Your task to perform on an android device: Open network settings Image 0: 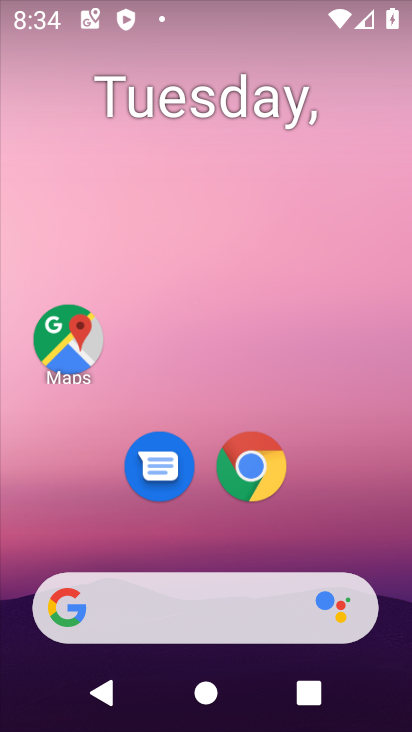
Step 0: drag from (339, 507) to (311, 67)
Your task to perform on an android device: Open network settings Image 1: 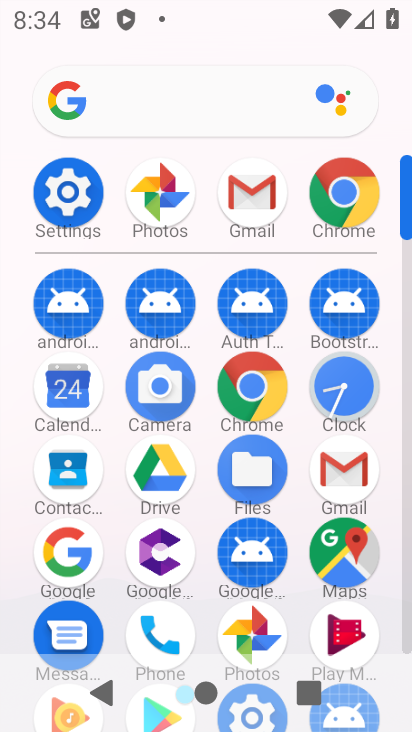
Step 1: click (42, 189)
Your task to perform on an android device: Open network settings Image 2: 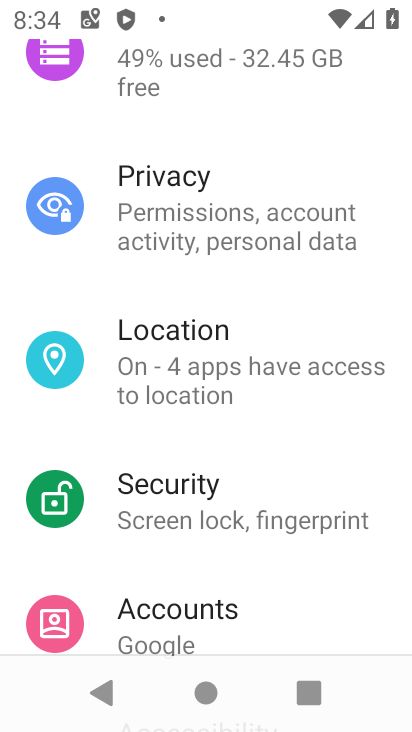
Step 2: drag from (251, 212) to (382, 708)
Your task to perform on an android device: Open network settings Image 3: 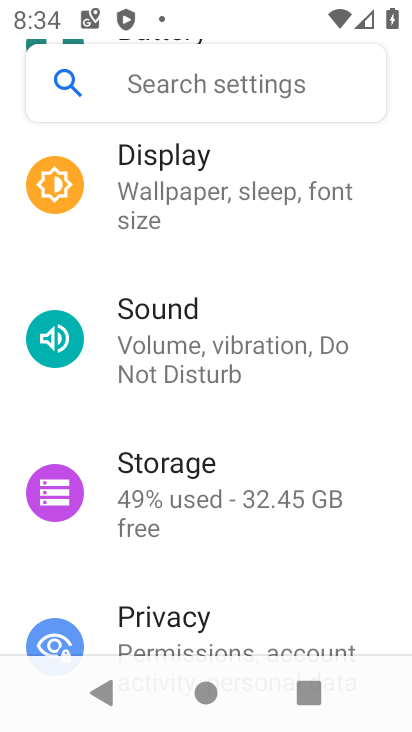
Step 3: drag from (234, 247) to (245, 464)
Your task to perform on an android device: Open network settings Image 4: 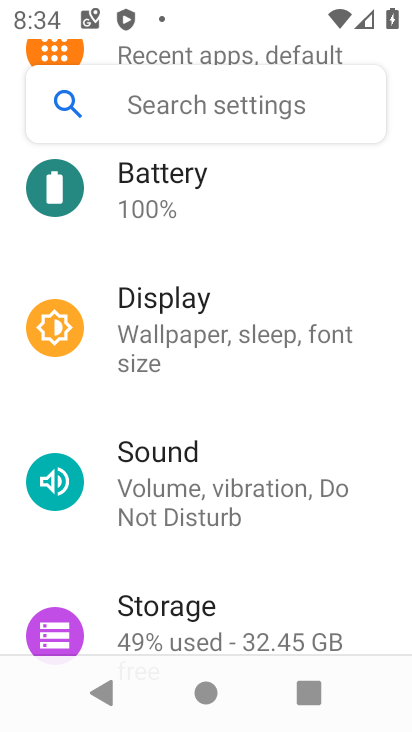
Step 4: drag from (245, 464) to (245, 526)
Your task to perform on an android device: Open network settings Image 5: 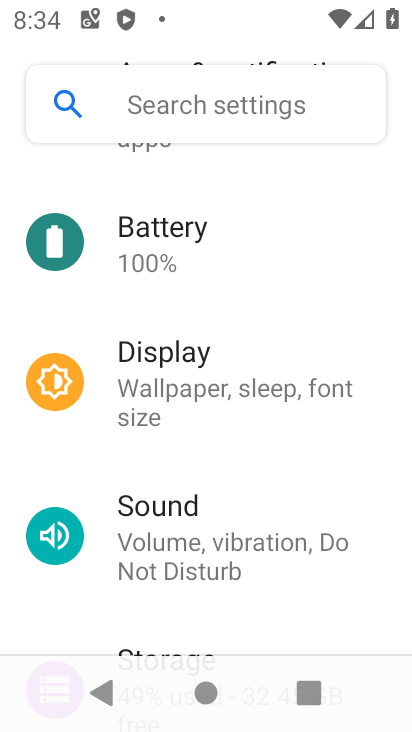
Step 5: drag from (253, 207) to (337, 720)
Your task to perform on an android device: Open network settings Image 6: 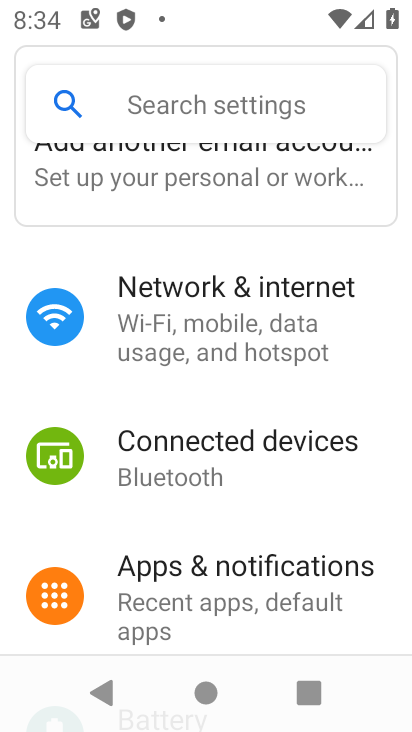
Step 6: click (280, 338)
Your task to perform on an android device: Open network settings Image 7: 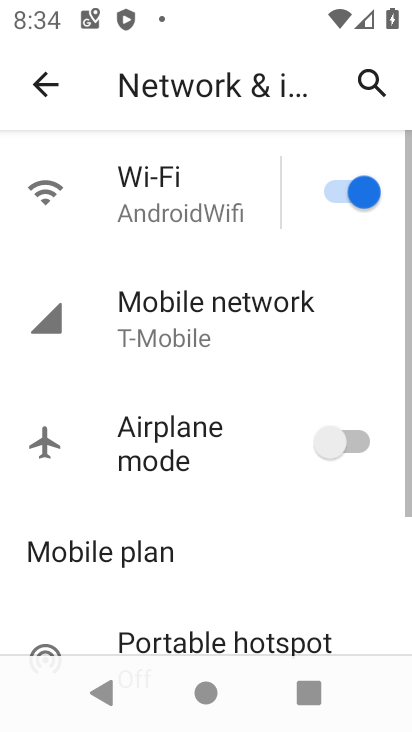
Step 7: task complete